Your task to perform on an android device: toggle notification dots Image 0: 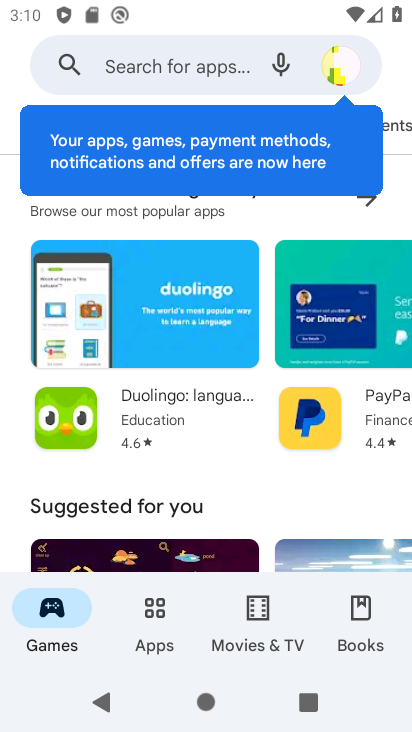
Step 0: press home button
Your task to perform on an android device: toggle notification dots Image 1: 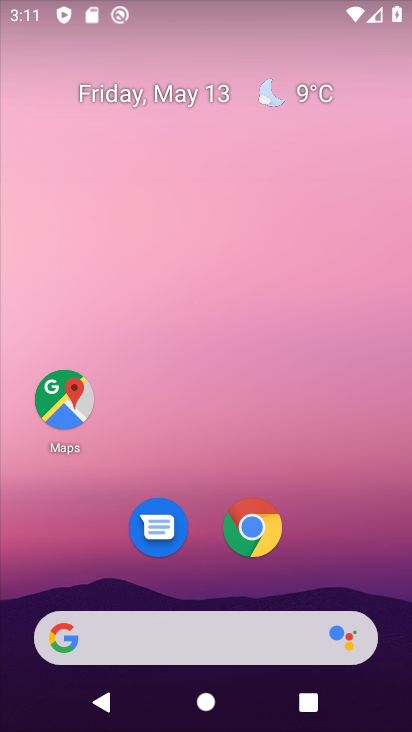
Step 1: drag from (320, 582) to (280, 291)
Your task to perform on an android device: toggle notification dots Image 2: 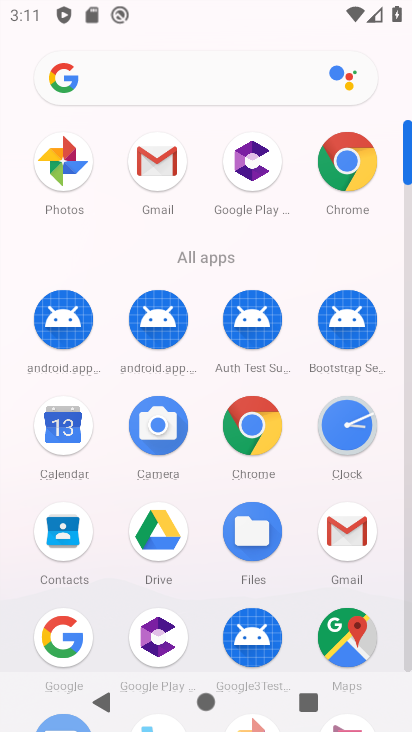
Step 2: drag from (204, 573) to (298, 159)
Your task to perform on an android device: toggle notification dots Image 3: 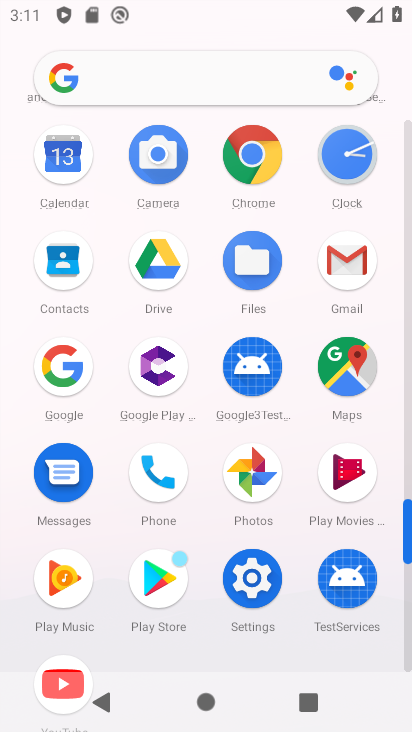
Step 3: click (261, 596)
Your task to perform on an android device: toggle notification dots Image 4: 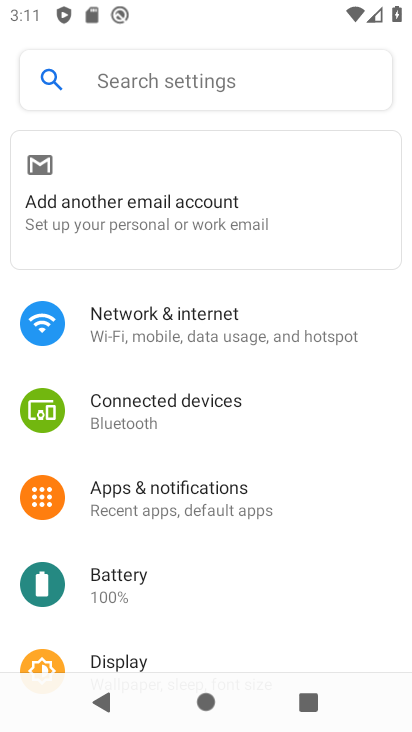
Step 4: click (158, 70)
Your task to perform on an android device: toggle notification dots Image 5: 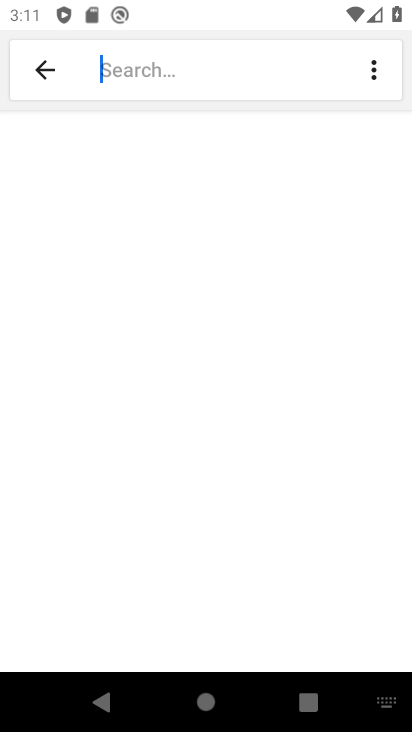
Step 5: click (246, 61)
Your task to perform on an android device: toggle notification dots Image 6: 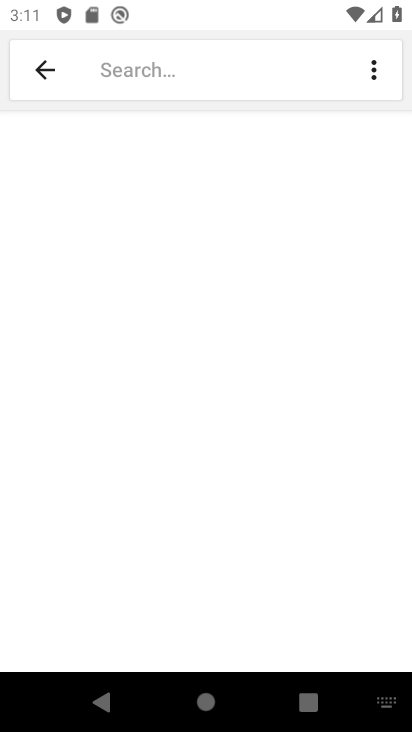
Step 6: type "notification dots"
Your task to perform on an android device: toggle notification dots Image 7: 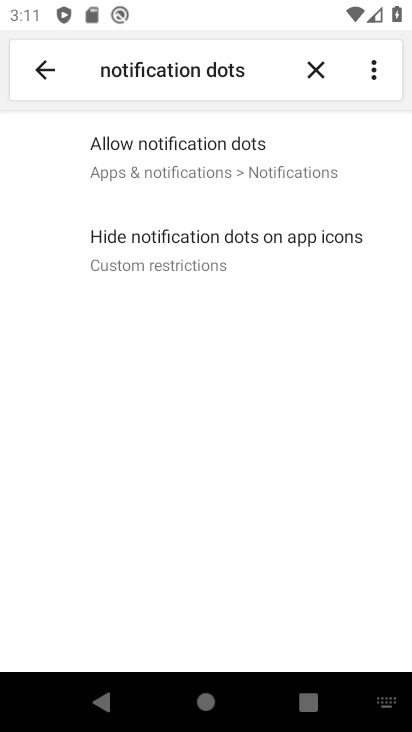
Step 7: click (175, 145)
Your task to perform on an android device: toggle notification dots Image 8: 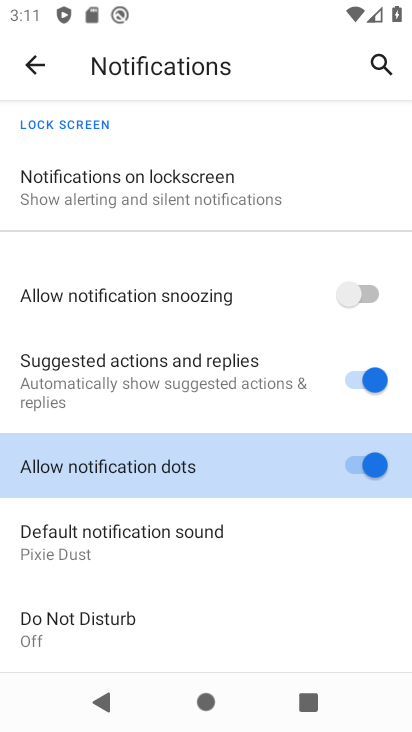
Step 8: click (373, 458)
Your task to perform on an android device: toggle notification dots Image 9: 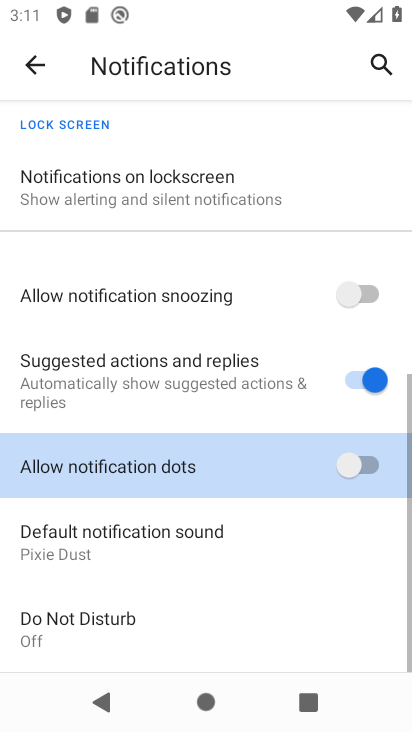
Step 9: task complete